Your task to perform on an android device: check data usage Image 0: 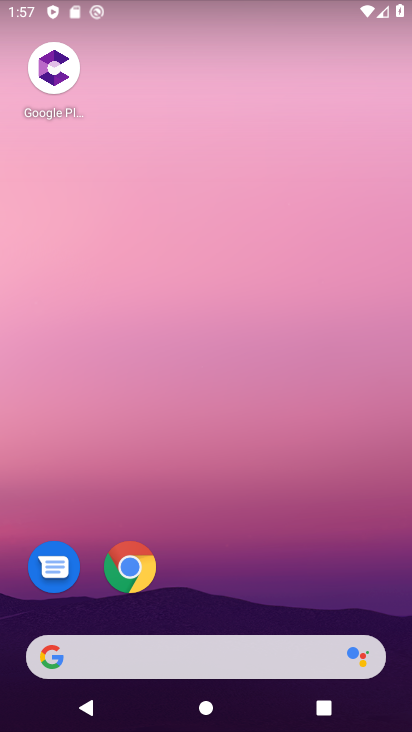
Step 0: drag from (246, 620) to (270, 94)
Your task to perform on an android device: check data usage Image 1: 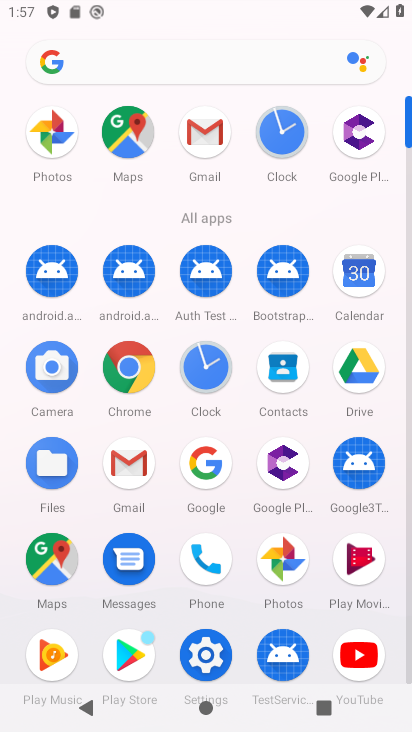
Step 1: click (197, 658)
Your task to perform on an android device: check data usage Image 2: 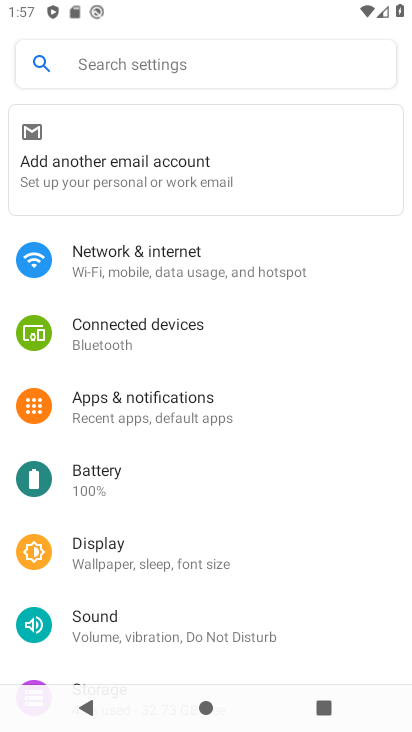
Step 2: click (144, 275)
Your task to perform on an android device: check data usage Image 3: 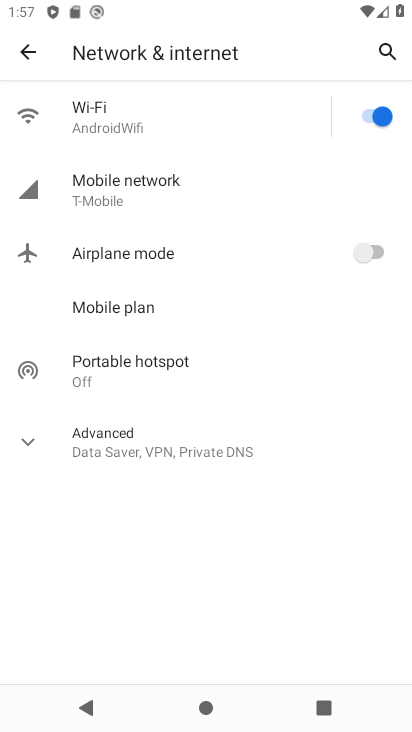
Step 3: click (166, 198)
Your task to perform on an android device: check data usage Image 4: 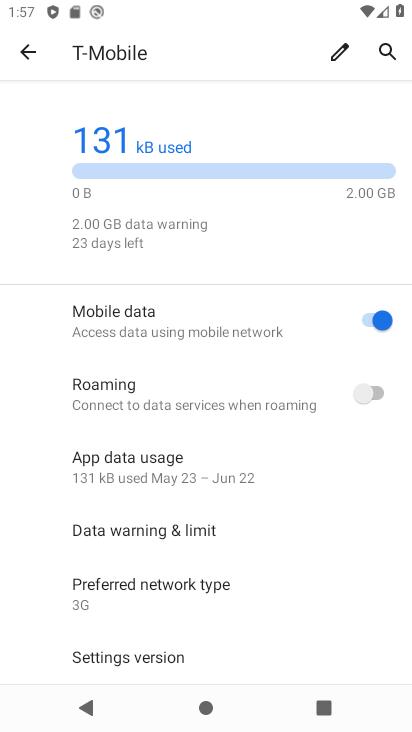
Step 4: click (211, 478)
Your task to perform on an android device: check data usage Image 5: 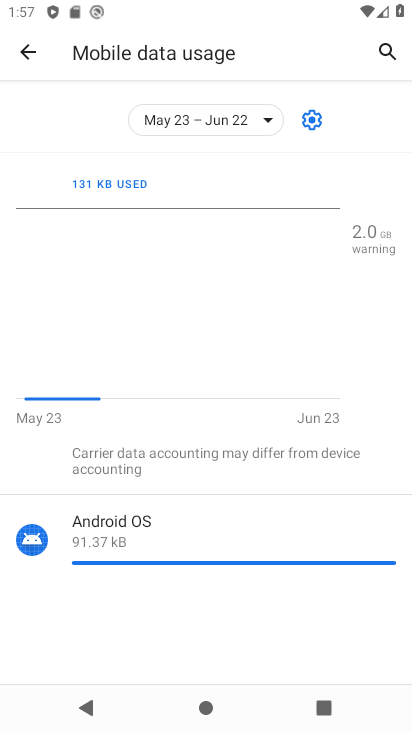
Step 5: task complete